Your task to perform on an android device: Open accessibility settings Image 0: 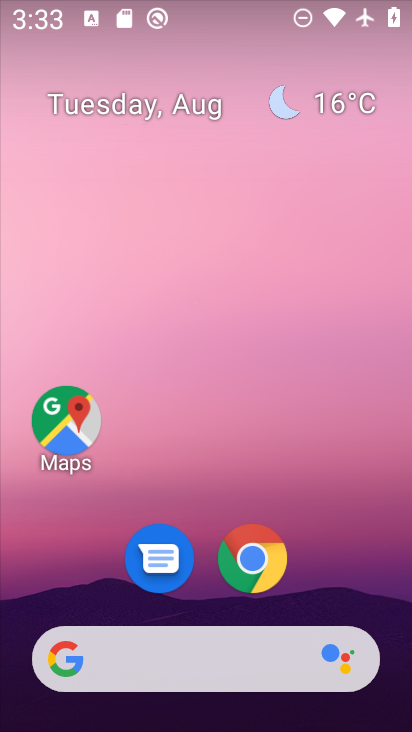
Step 0: drag from (190, 367) to (190, 194)
Your task to perform on an android device: Open accessibility settings Image 1: 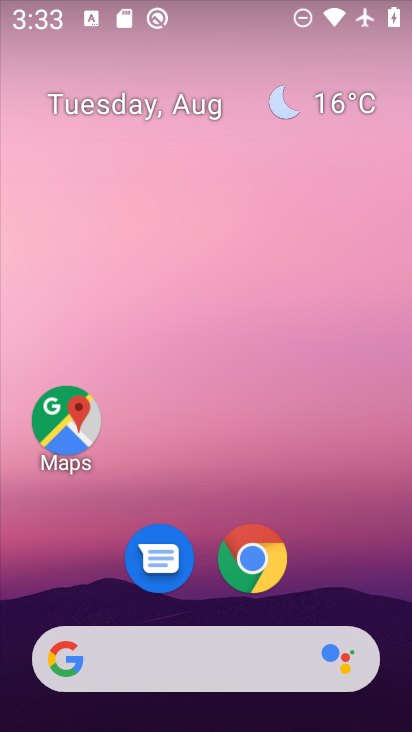
Step 1: drag from (198, 494) to (207, 167)
Your task to perform on an android device: Open accessibility settings Image 2: 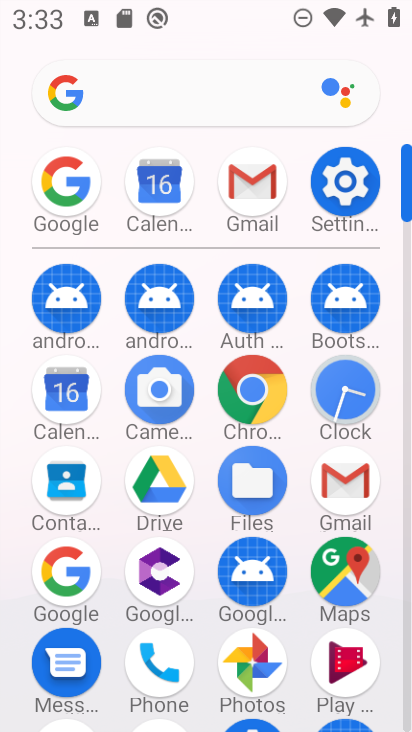
Step 2: click (343, 189)
Your task to perform on an android device: Open accessibility settings Image 3: 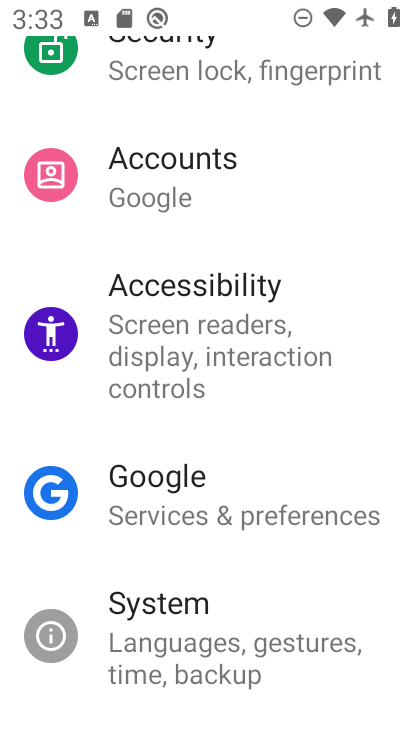
Step 3: click (204, 340)
Your task to perform on an android device: Open accessibility settings Image 4: 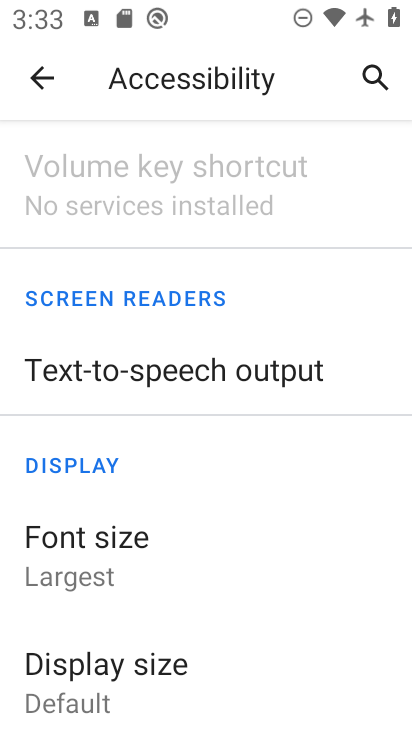
Step 4: task complete